Your task to perform on an android device: all mails in gmail Image 0: 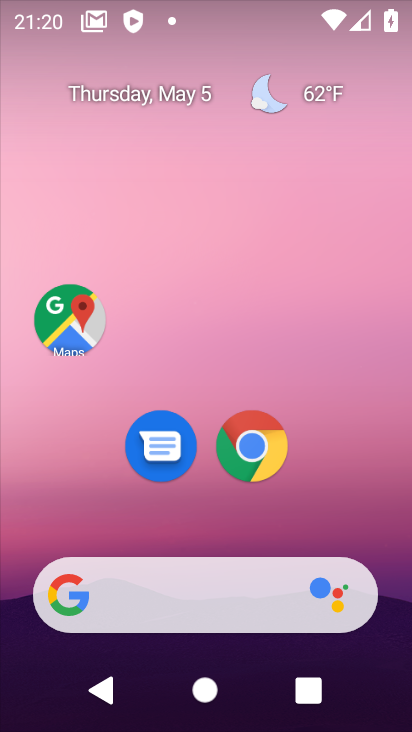
Step 0: drag from (300, 595) to (247, 218)
Your task to perform on an android device: all mails in gmail Image 1: 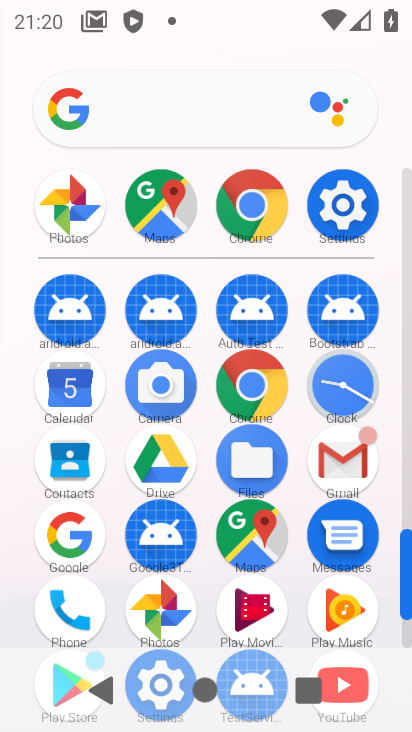
Step 1: click (343, 474)
Your task to perform on an android device: all mails in gmail Image 2: 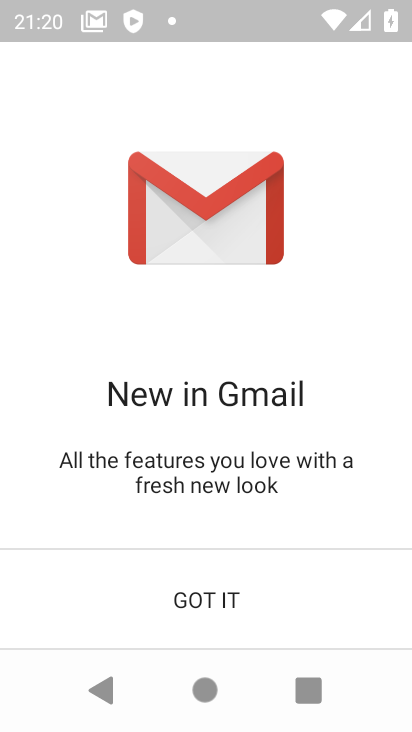
Step 2: click (167, 627)
Your task to perform on an android device: all mails in gmail Image 3: 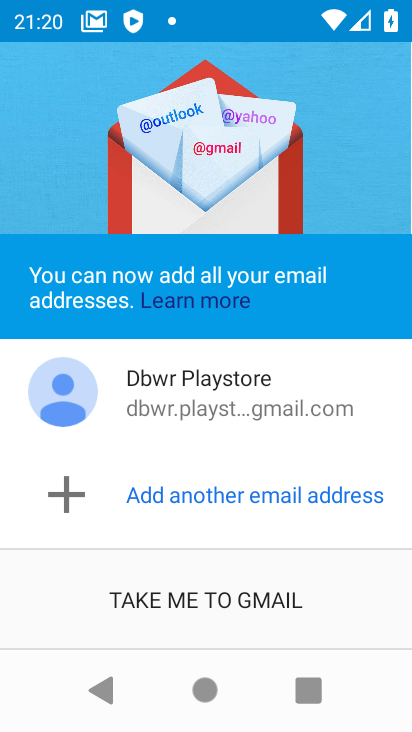
Step 3: click (193, 607)
Your task to perform on an android device: all mails in gmail Image 4: 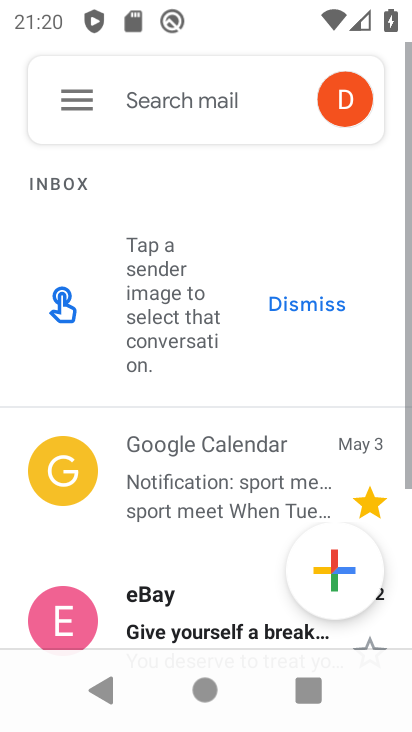
Step 4: click (281, 301)
Your task to perform on an android device: all mails in gmail Image 5: 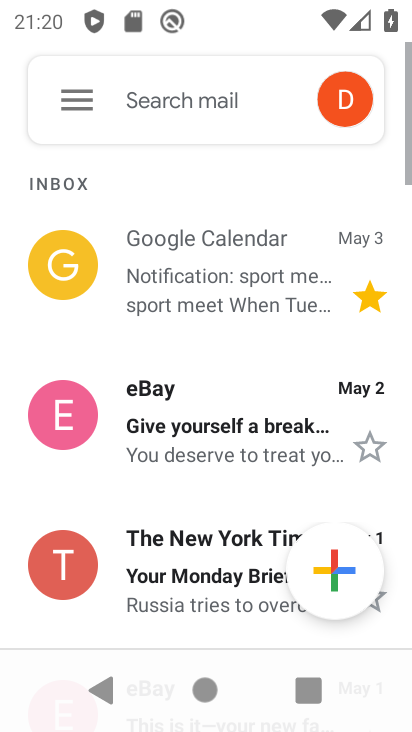
Step 5: click (69, 92)
Your task to perform on an android device: all mails in gmail Image 6: 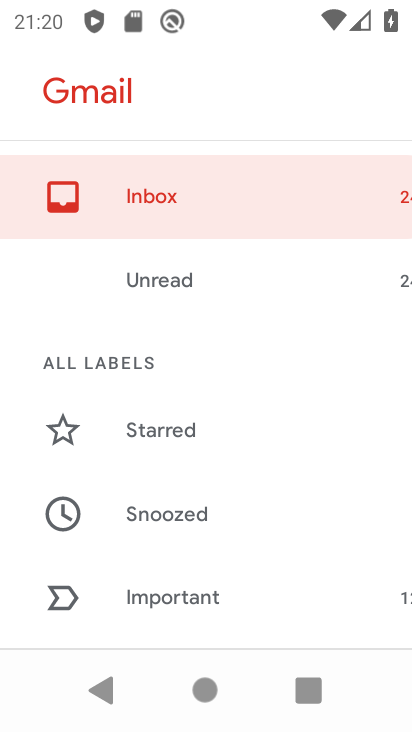
Step 6: drag from (172, 583) to (229, 191)
Your task to perform on an android device: all mails in gmail Image 7: 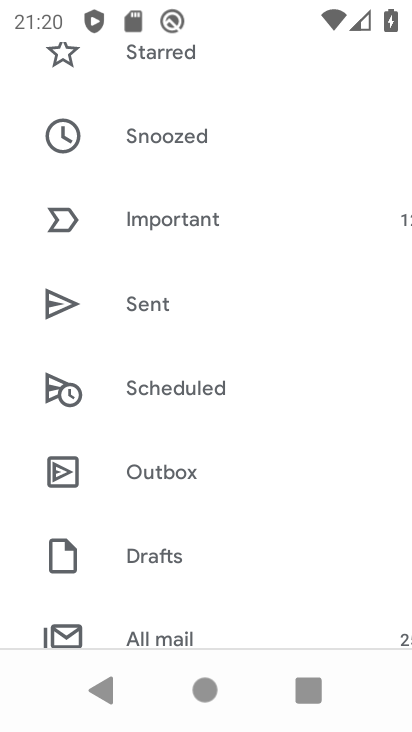
Step 7: click (180, 627)
Your task to perform on an android device: all mails in gmail Image 8: 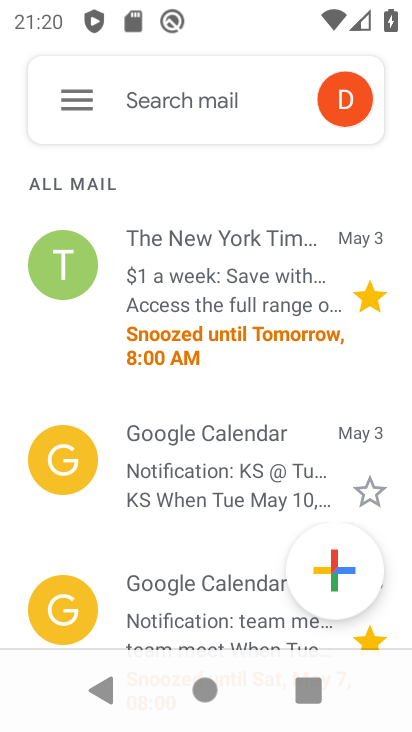
Step 8: task complete